Your task to perform on an android device: Open wifi settings Image 0: 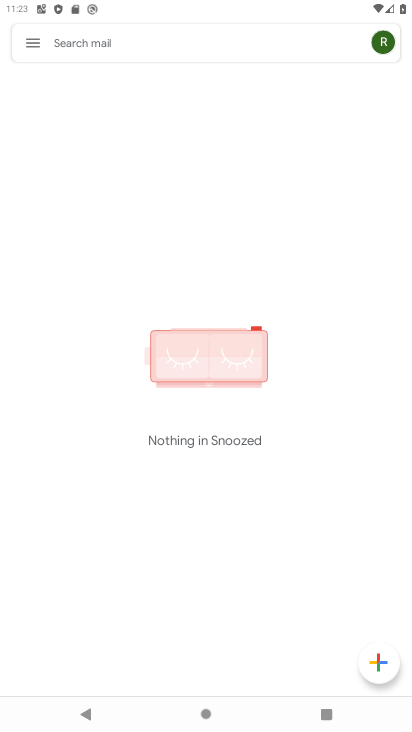
Step 0: press home button
Your task to perform on an android device: Open wifi settings Image 1: 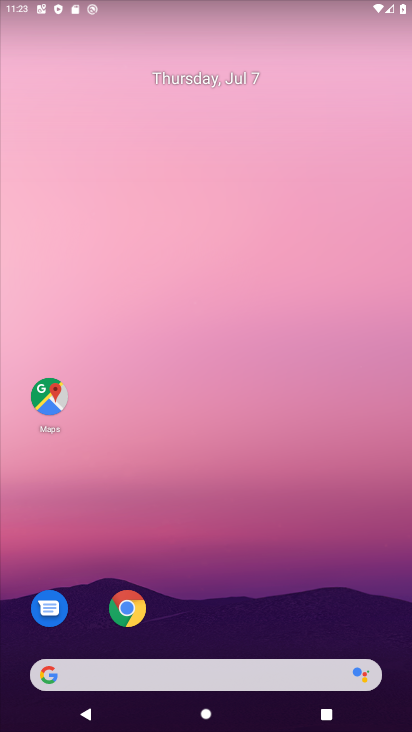
Step 1: drag from (22, 620) to (361, 87)
Your task to perform on an android device: Open wifi settings Image 2: 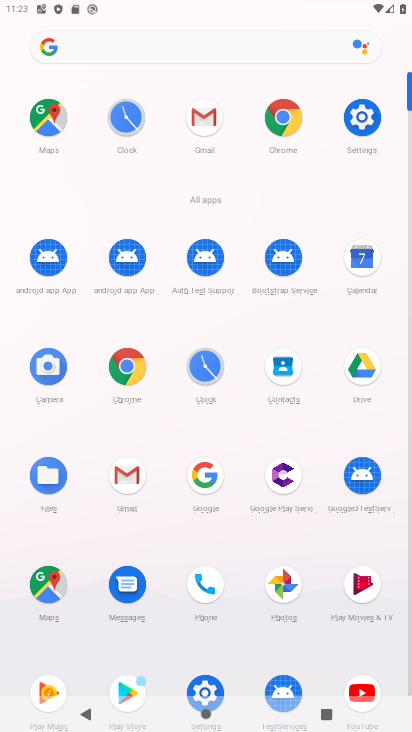
Step 2: click (367, 120)
Your task to perform on an android device: Open wifi settings Image 3: 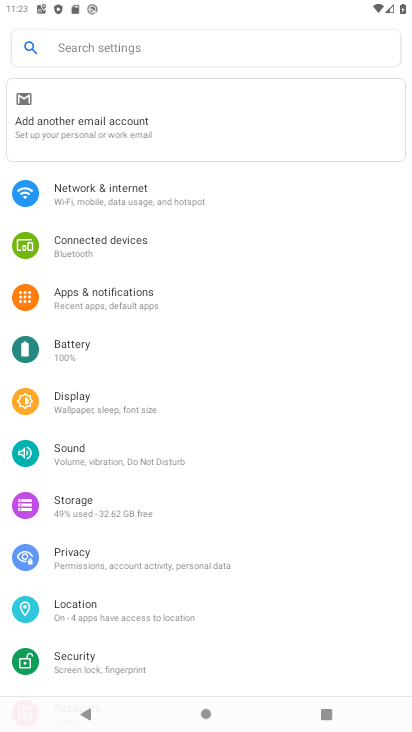
Step 3: click (143, 204)
Your task to perform on an android device: Open wifi settings Image 4: 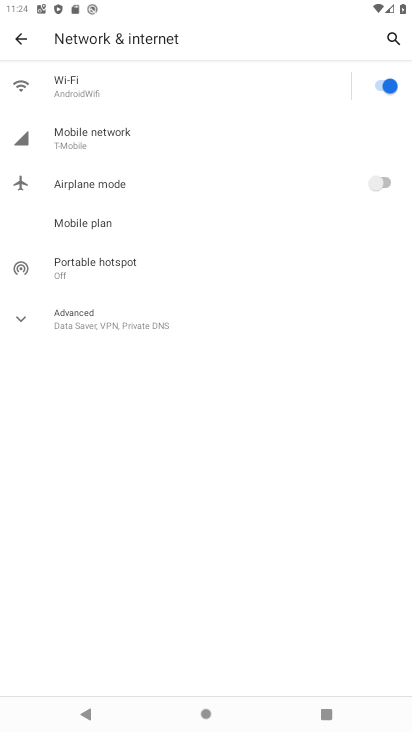
Step 4: task complete